Your task to perform on an android device: Open calendar and show me the second week of next month Image 0: 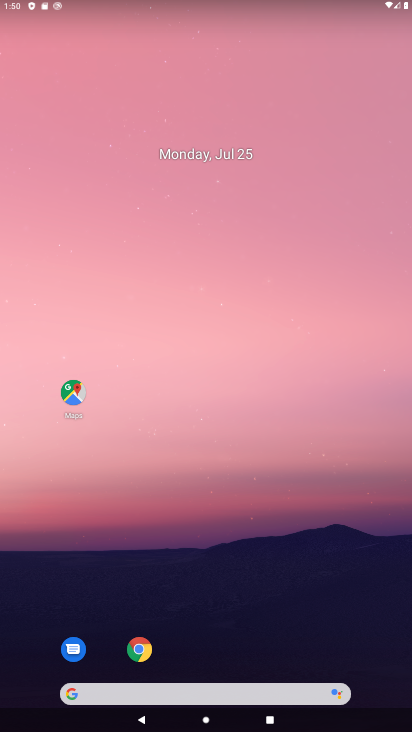
Step 0: drag from (233, 718) to (268, 165)
Your task to perform on an android device: Open calendar and show me the second week of next month Image 1: 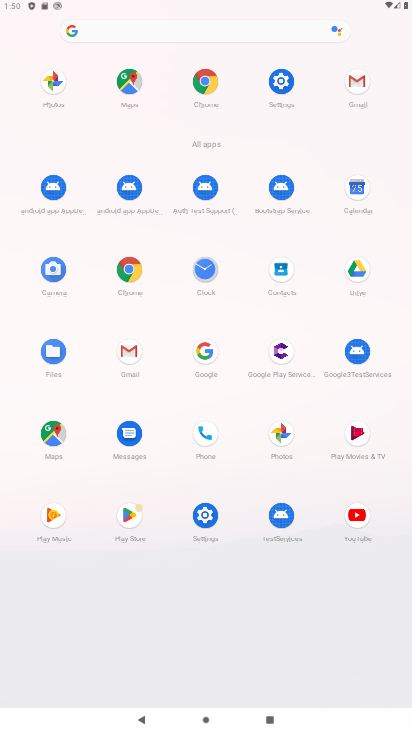
Step 1: click (359, 192)
Your task to perform on an android device: Open calendar and show me the second week of next month Image 2: 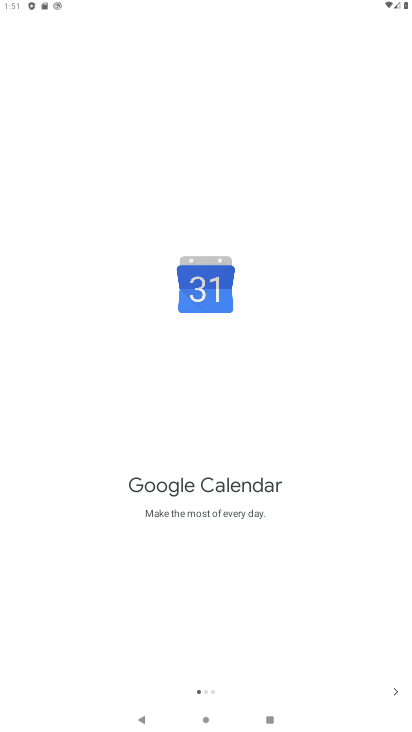
Step 2: click (390, 694)
Your task to perform on an android device: Open calendar and show me the second week of next month Image 3: 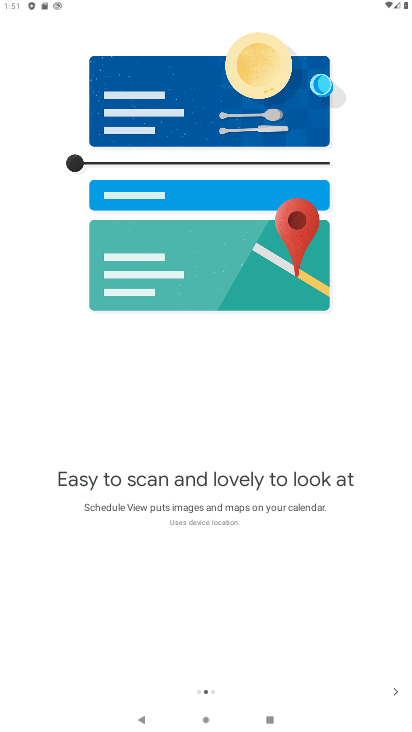
Step 3: click (390, 694)
Your task to perform on an android device: Open calendar and show me the second week of next month Image 4: 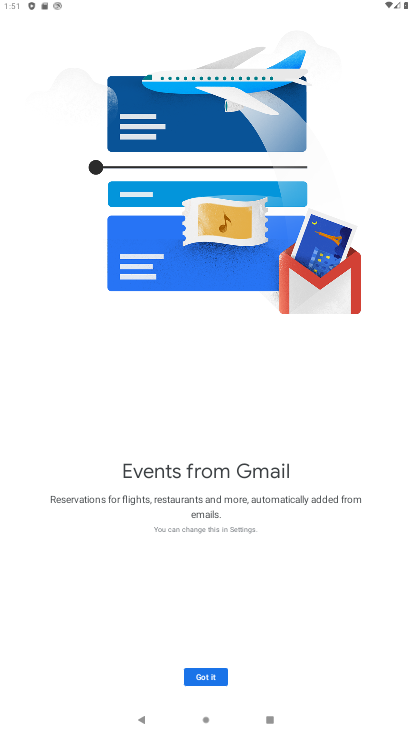
Step 4: click (210, 673)
Your task to perform on an android device: Open calendar and show me the second week of next month Image 5: 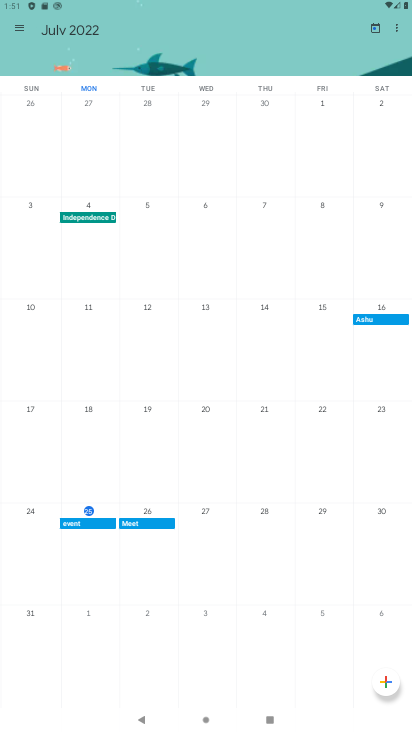
Step 5: click (53, 22)
Your task to perform on an android device: Open calendar and show me the second week of next month Image 6: 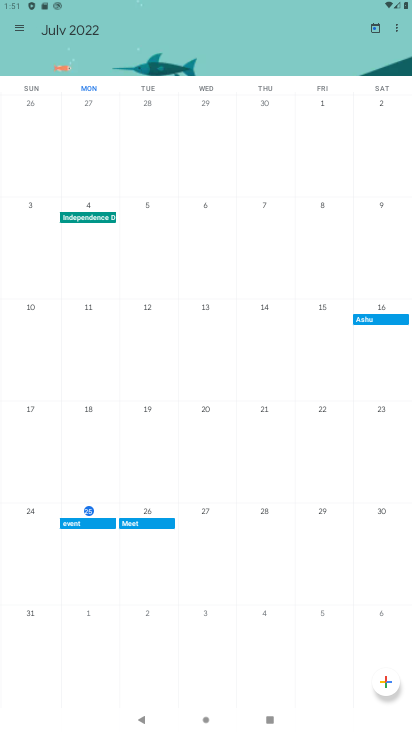
Step 6: click (69, 35)
Your task to perform on an android device: Open calendar and show me the second week of next month Image 7: 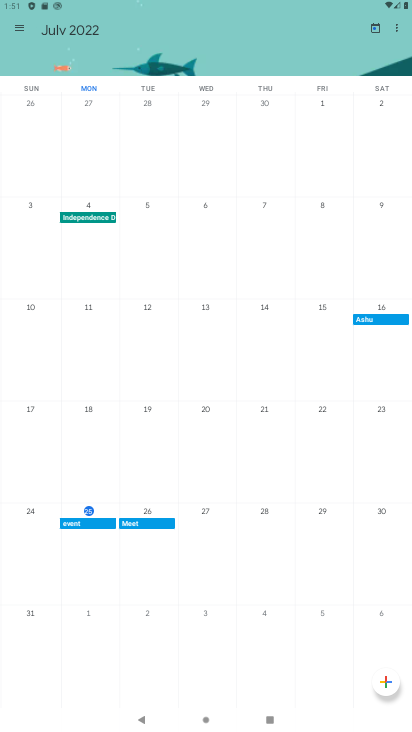
Step 7: click (69, 28)
Your task to perform on an android device: Open calendar and show me the second week of next month Image 8: 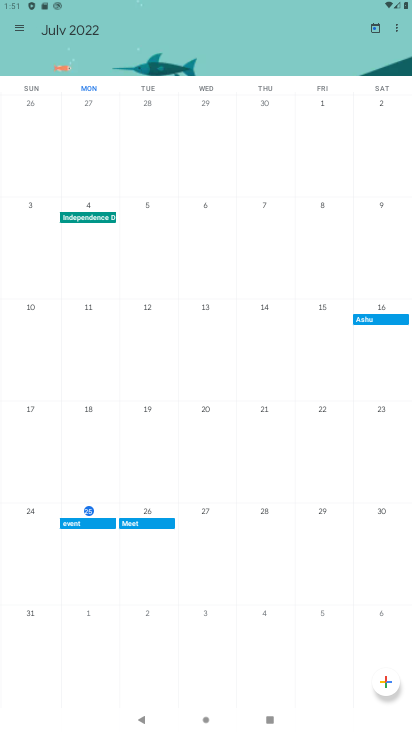
Step 8: click (48, 29)
Your task to perform on an android device: Open calendar and show me the second week of next month Image 9: 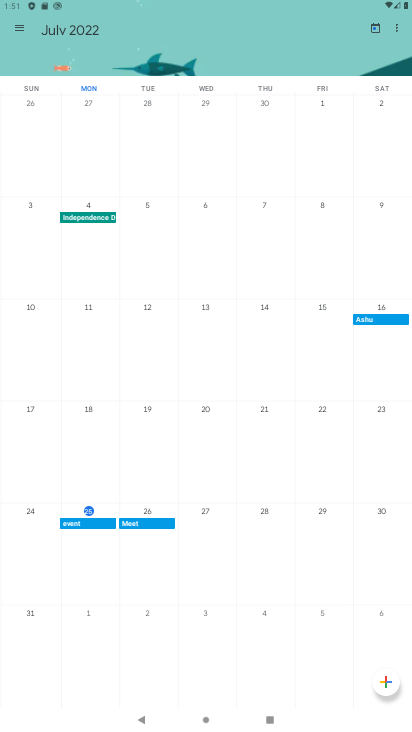
Step 9: drag from (364, 452) to (89, 589)
Your task to perform on an android device: Open calendar and show me the second week of next month Image 10: 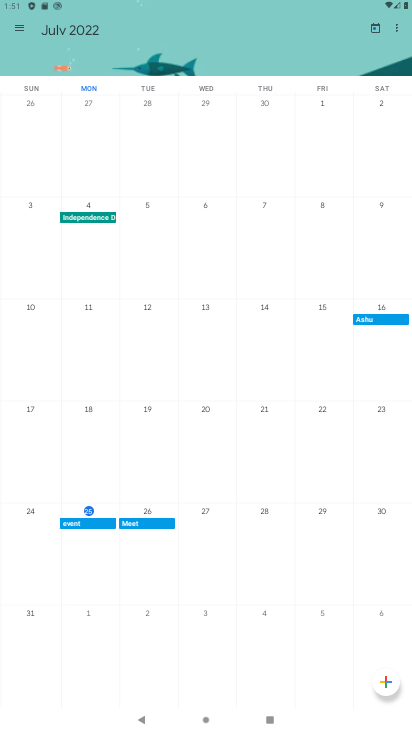
Step 10: drag from (232, 307) to (39, 596)
Your task to perform on an android device: Open calendar and show me the second week of next month Image 11: 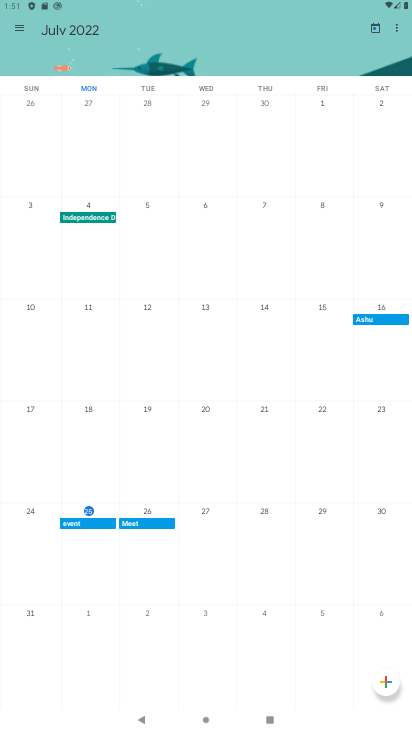
Step 11: drag from (222, 545) to (274, 50)
Your task to perform on an android device: Open calendar and show me the second week of next month Image 12: 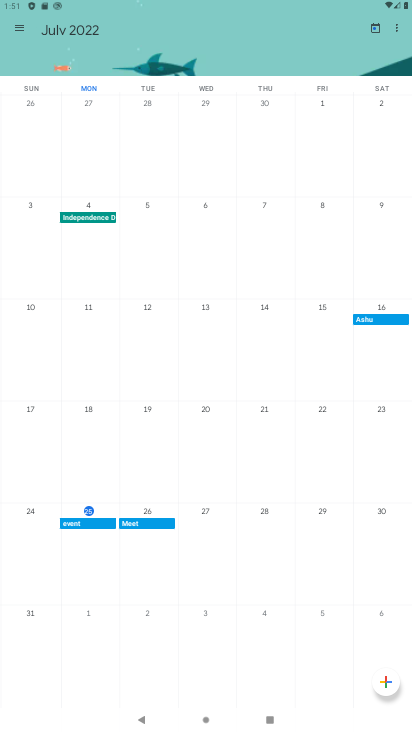
Step 12: drag from (268, 591) to (355, 4)
Your task to perform on an android device: Open calendar and show me the second week of next month Image 13: 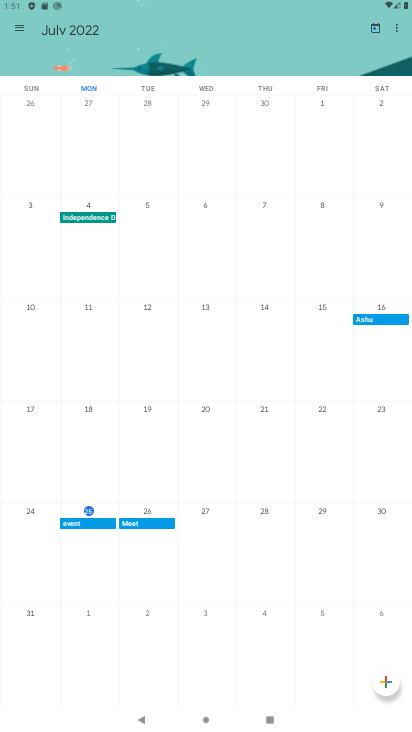
Step 13: drag from (322, 334) to (16, 339)
Your task to perform on an android device: Open calendar and show me the second week of next month Image 14: 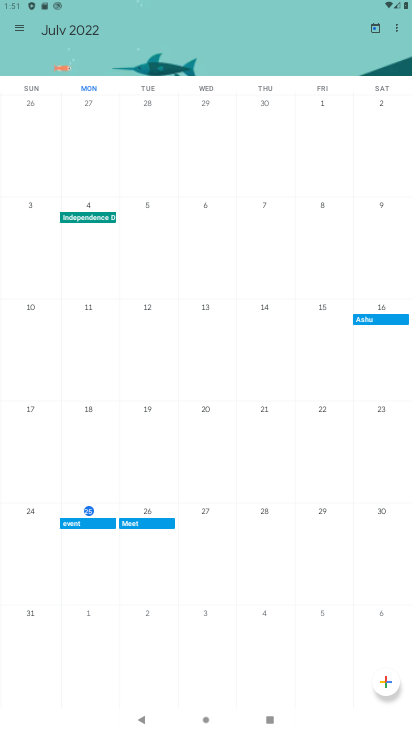
Step 14: drag from (397, 239) to (4, 349)
Your task to perform on an android device: Open calendar and show me the second week of next month Image 15: 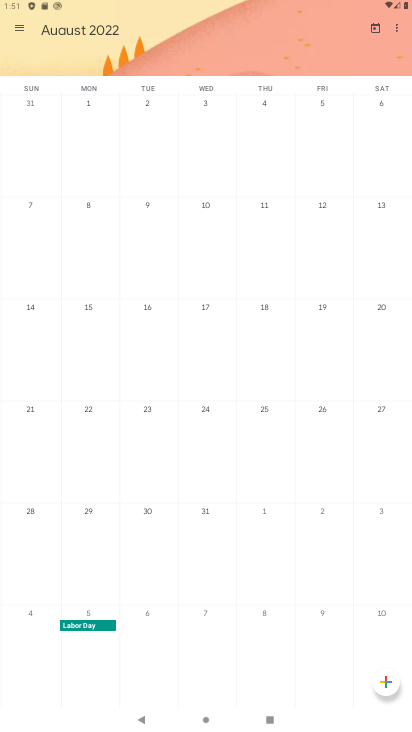
Step 15: click (30, 202)
Your task to perform on an android device: Open calendar and show me the second week of next month Image 16: 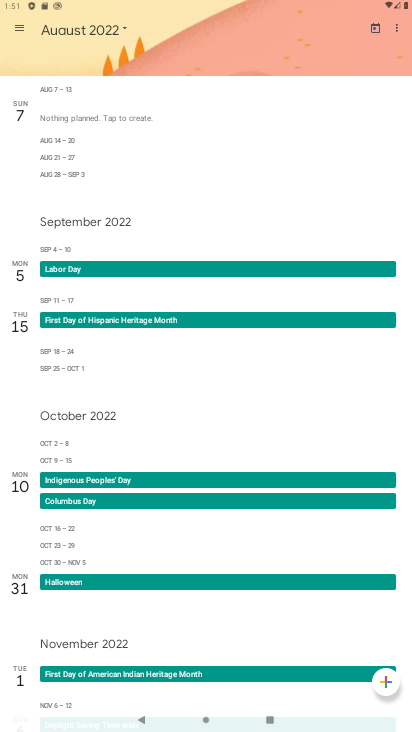
Step 16: task complete